Your task to perform on an android device: turn off improve location accuracy Image 0: 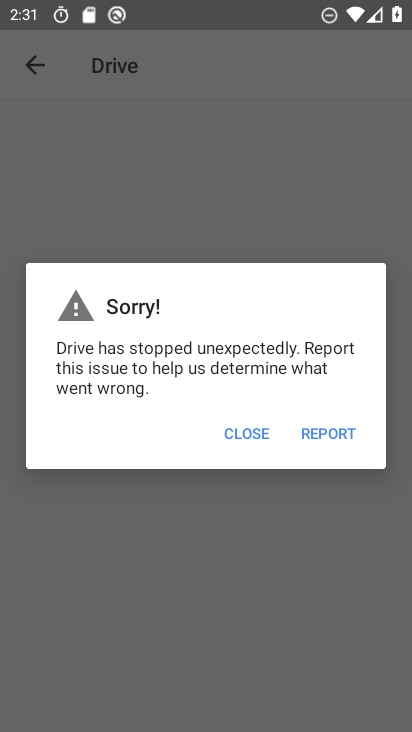
Step 0: press home button
Your task to perform on an android device: turn off improve location accuracy Image 1: 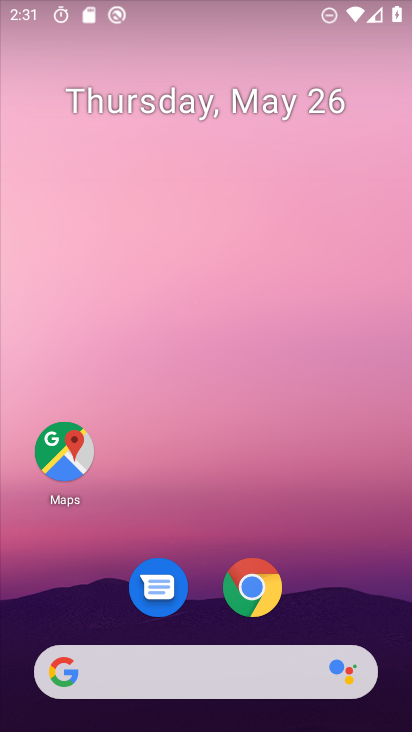
Step 1: drag from (261, 503) to (234, 98)
Your task to perform on an android device: turn off improve location accuracy Image 2: 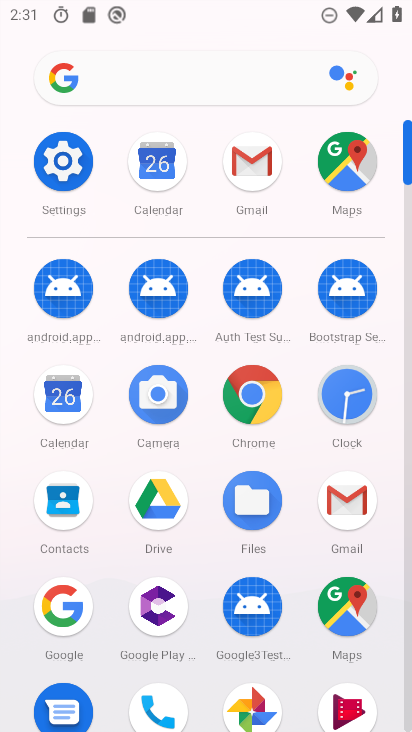
Step 2: click (70, 171)
Your task to perform on an android device: turn off improve location accuracy Image 3: 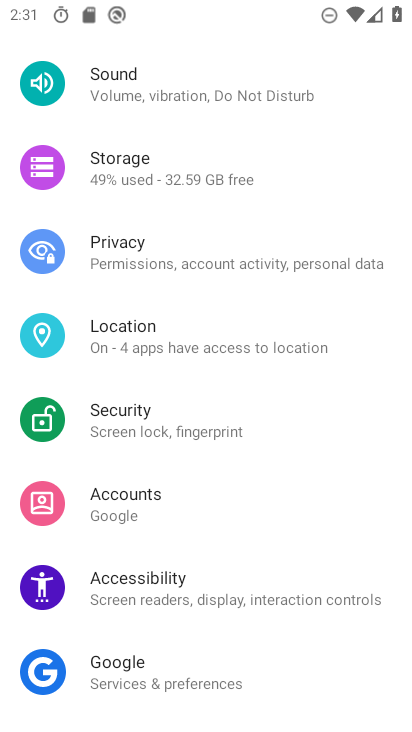
Step 3: drag from (224, 162) to (285, 264)
Your task to perform on an android device: turn off improve location accuracy Image 4: 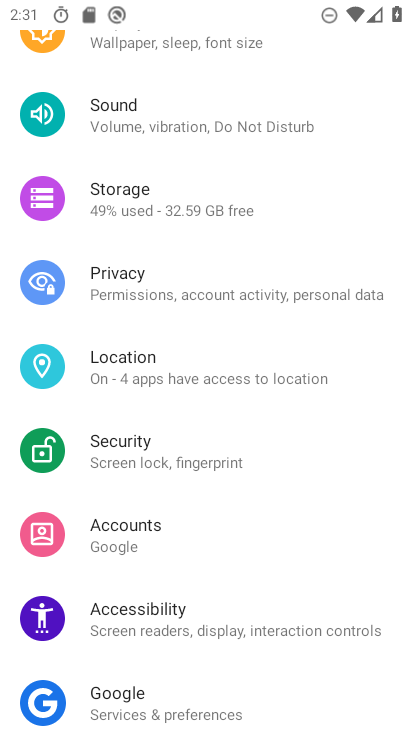
Step 4: click (134, 361)
Your task to perform on an android device: turn off improve location accuracy Image 5: 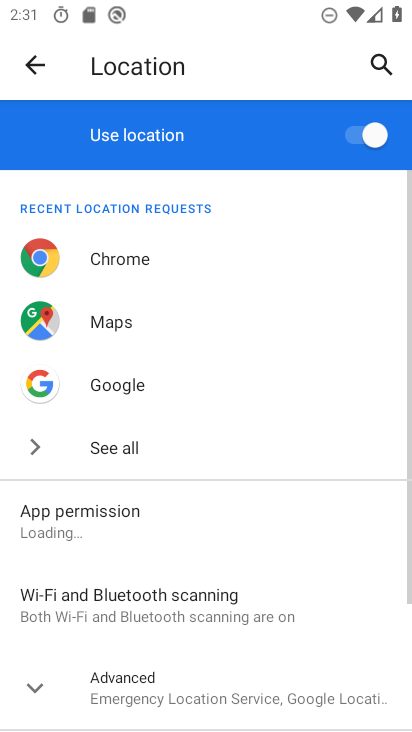
Step 5: drag from (203, 586) to (203, 241)
Your task to perform on an android device: turn off improve location accuracy Image 6: 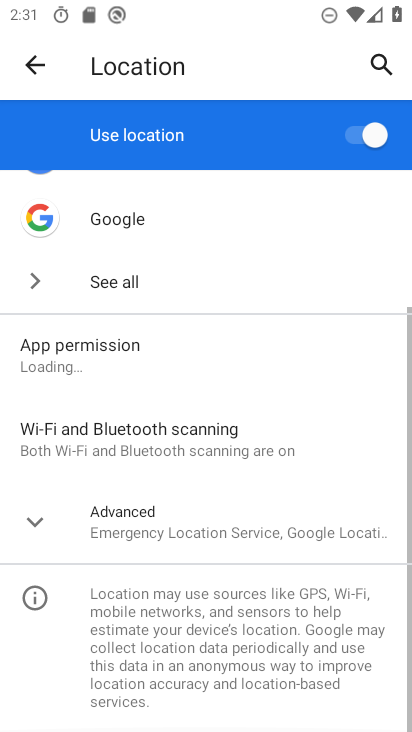
Step 6: click (135, 505)
Your task to perform on an android device: turn off improve location accuracy Image 7: 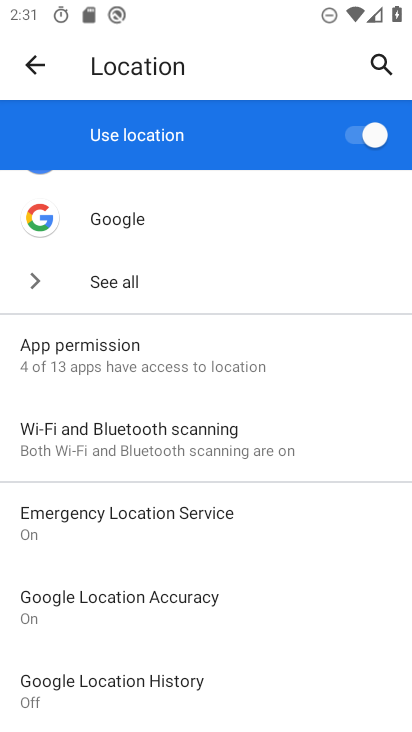
Step 7: drag from (246, 536) to (266, 211)
Your task to perform on an android device: turn off improve location accuracy Image 8: 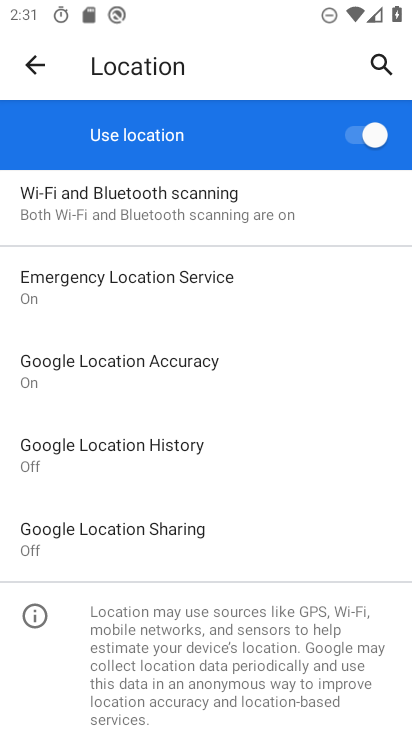
Step 8: click (194, 370)
Your task to perform on an android device: turn off improve location accuracy Image 9: 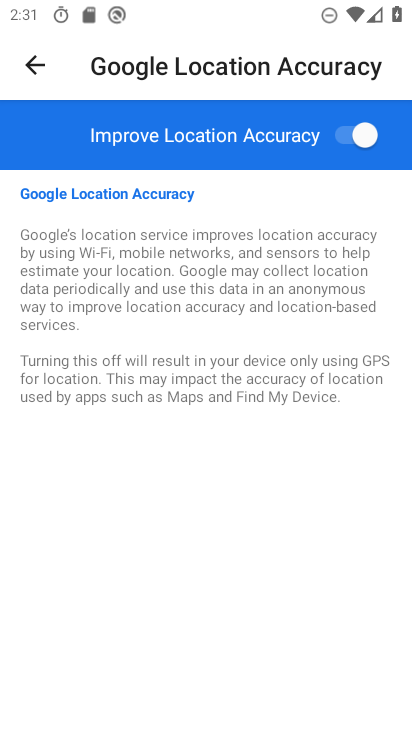
Step 9: click (340, 155)
Your task to perform on an android device: turn off improve location accuracy Image 10: 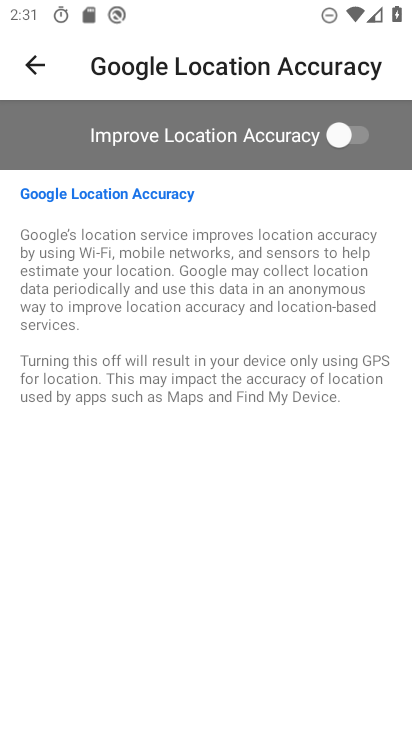
Step 10: task complete